Your task to perform on an android device: turn off picture-in-picture Image 0: 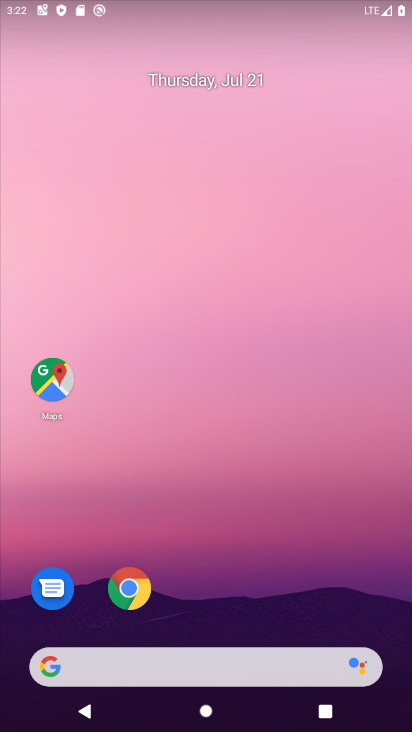
Step 0: click (140, 577)
Your task to perform on an android device: turn off picture-in-picture Image 1: 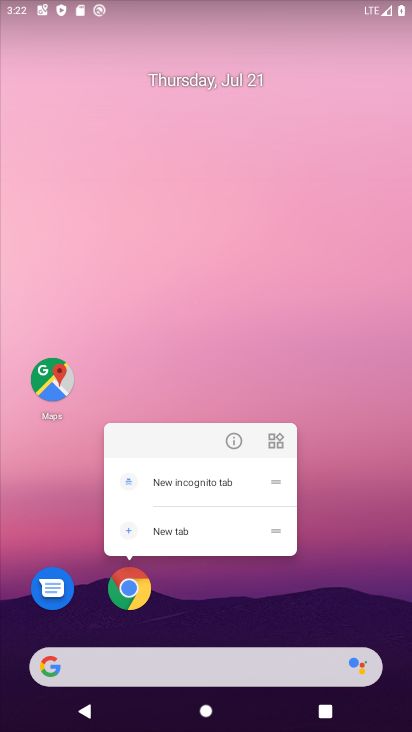
Step 1: click (240, 436)
Your task to perform on an android device: turn off picture-in-picture Image 2: 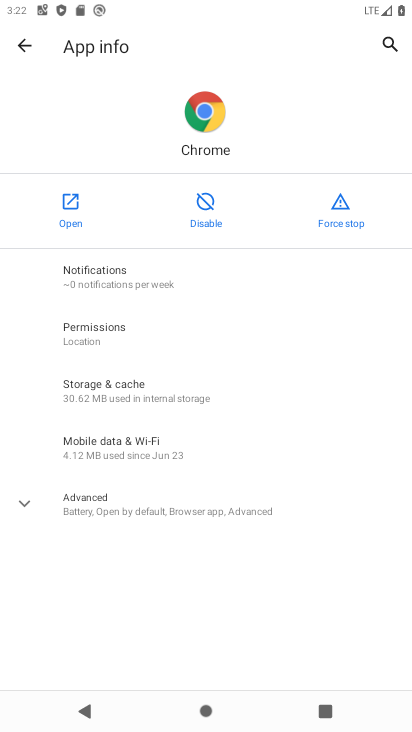
Step 2: click (160, 500)
Your task to perform on an android device: turn off picture-in-picture Image 3: 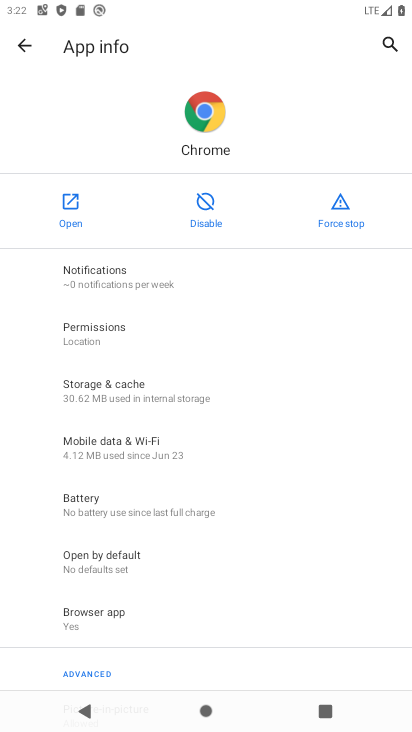
Step 3: drag from (162, 596) to (176, 248)
Your task to perform on an android device: turn off picture-in-picture Image 4: 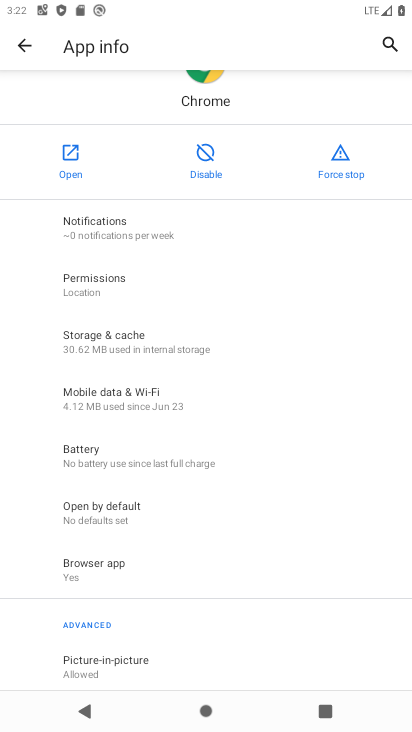
Step 4: click (129, 663)
Your task to perform on an android device: turn off picture-in-picture Image 5: 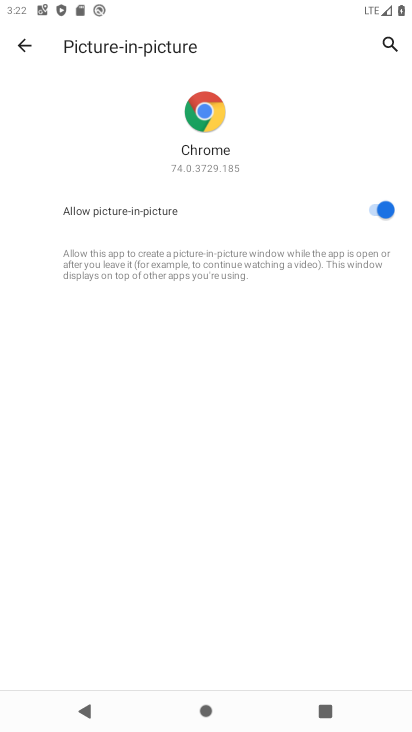
Step 5: click (369, 206)
Your task to perform on an android device: turn off picture-in-picture Image 6: 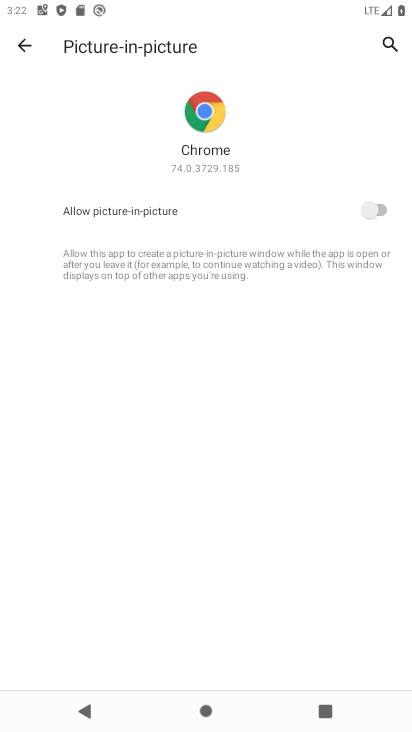
Step 6: task complete